Your task to perform on an android device: Open Chrome and go to settings Image 0: 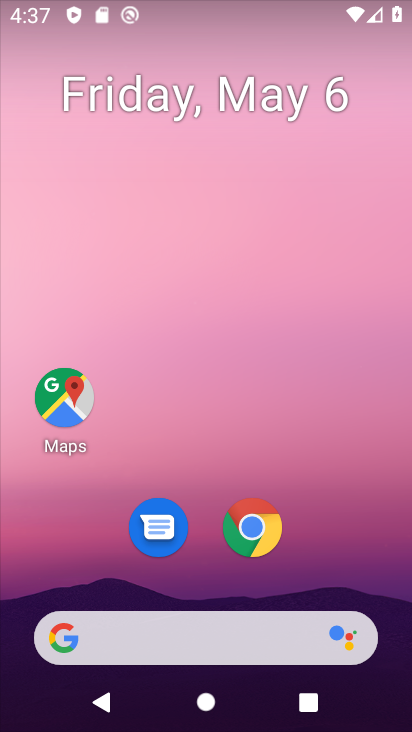
Step 0: click (256, 537)
Your task to perform on an android device: Open Chrome and go to settings Image 1: 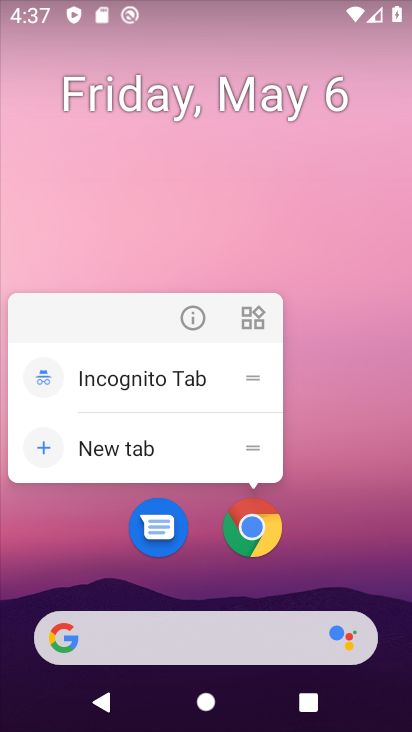
Step 1: click (250, 537)
Your task to perform on an android device: Open Chrome and go to settings Image 2: 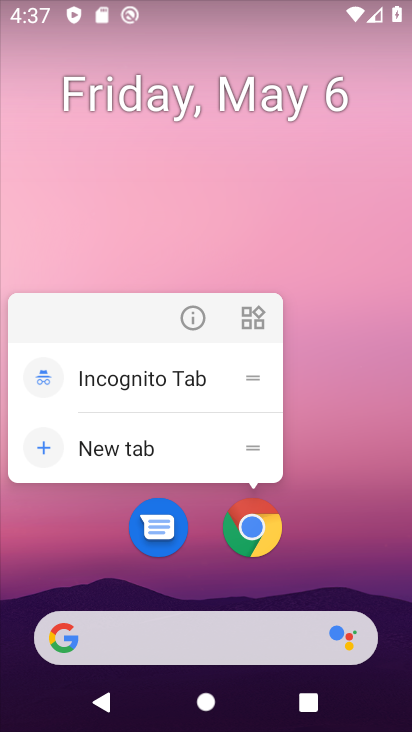
Step 2: click (260, 534)
Your task to perform on an android device: Open Chrome and go to settings Image 3: 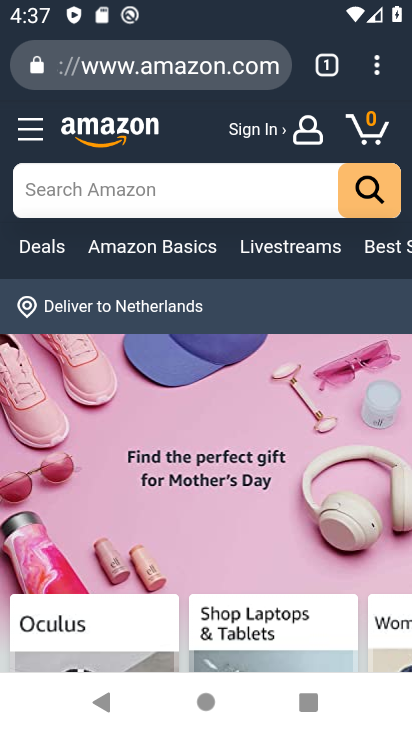
Step 3: task complete